Your task to perform on an android device: Open calendar and show me the second week of next month Image 0: 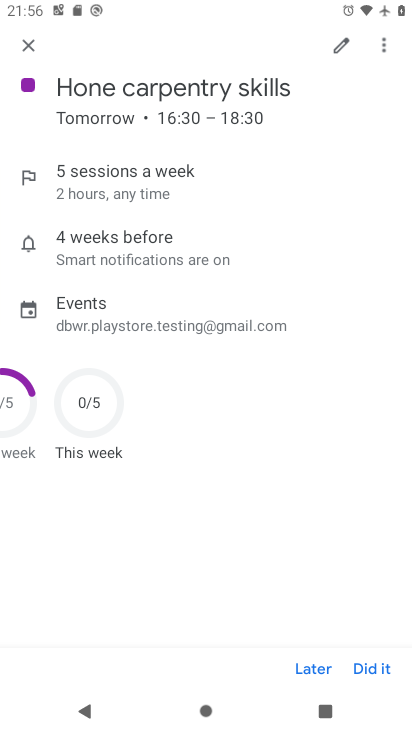
Step 0: press home button
Your task to perform on an android device: Open calendar and show me the second week of next month Image 1: 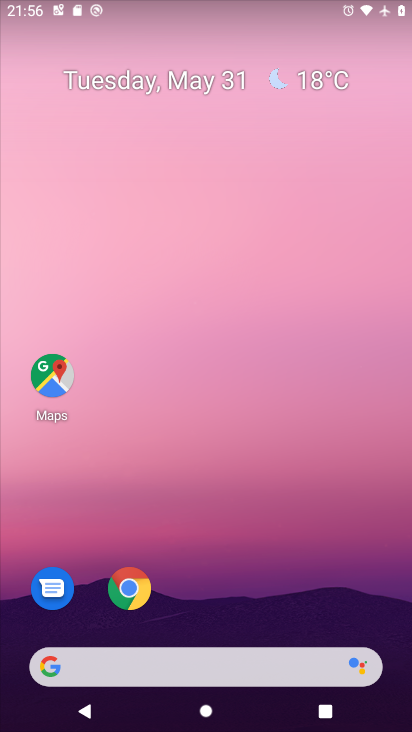
Step 1: drag from (153, 664) to (280, 93)
Your task to perform on an android device: Open calendar and show me the second week of next month Image 2: 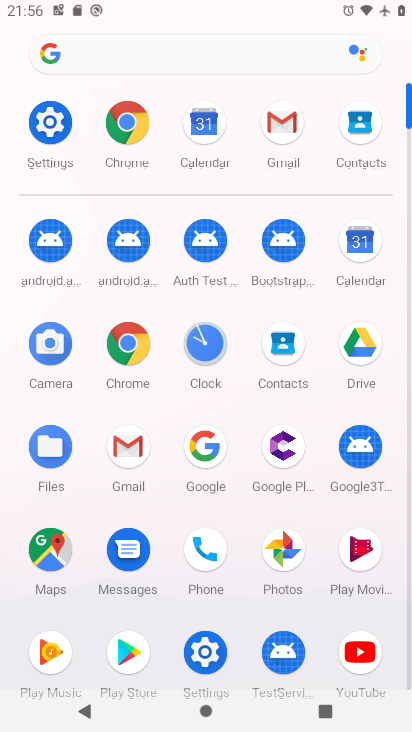
Step 2: click (361, 247)
Your task to perform on an android device: Open calendar and show me the second week of next month Image 3: 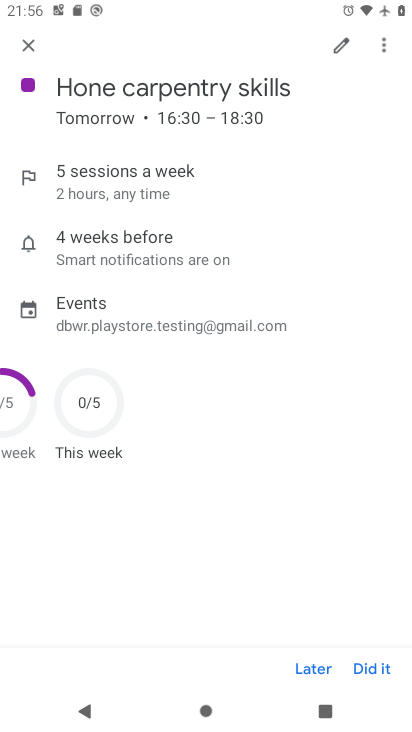
Step 3: click (28, 47)
Your task to perform on an android device: Open calendar and show me the second week of next month Image 4: 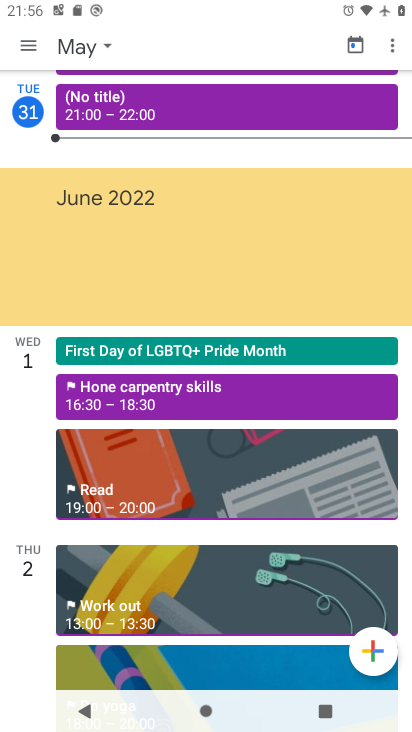
Step 4: click (83, 39)
Your task to perform on an android device: Open calendar and show me the second week of next month Image 5: 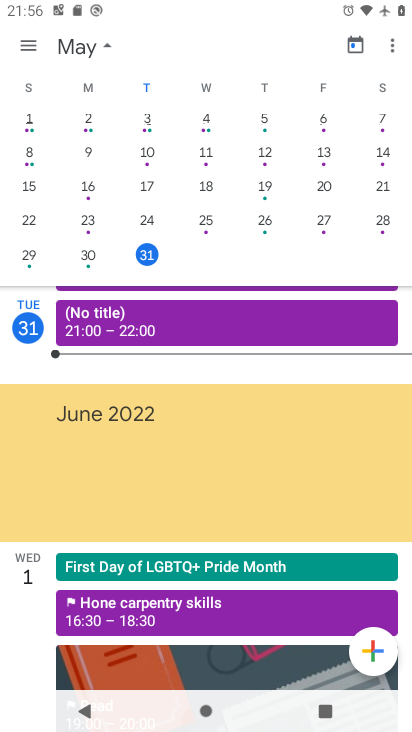
Step 5: drag from (376, 176) to (52, 210)
Your task to perform on an android device: Open calendar and show me the second week of next month Image 6: 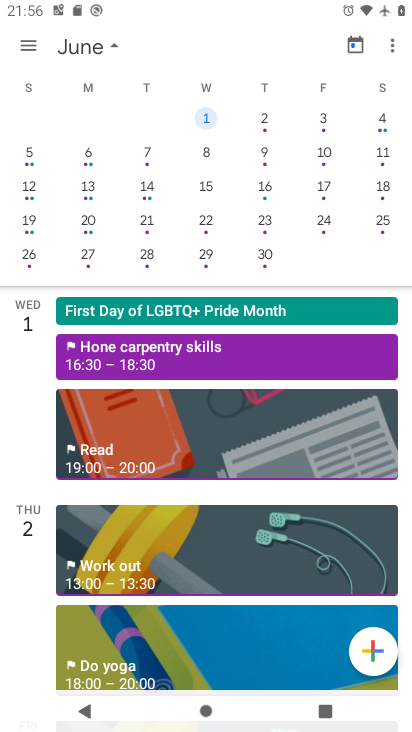
Step 6: click (30, 155)
Your task to perform on an android device: Open calendar and show me the second week of next month Image 7: 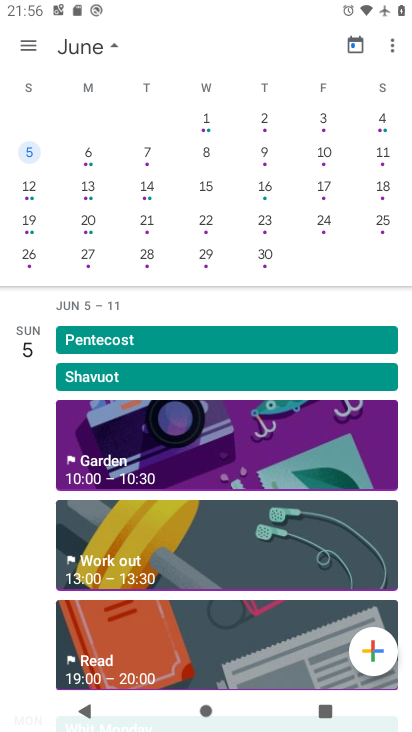
Step 7: click (28, 39)
Your task to perform on an android device: Open calendar and show me the second week of next month Image 8: 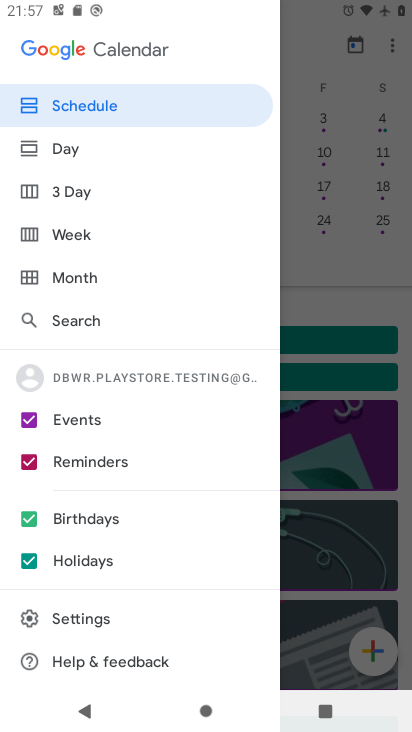
Step 8: click (82, 235)
Your task to perform on an android device: Open calendar and show me the second week of next month Image 9: 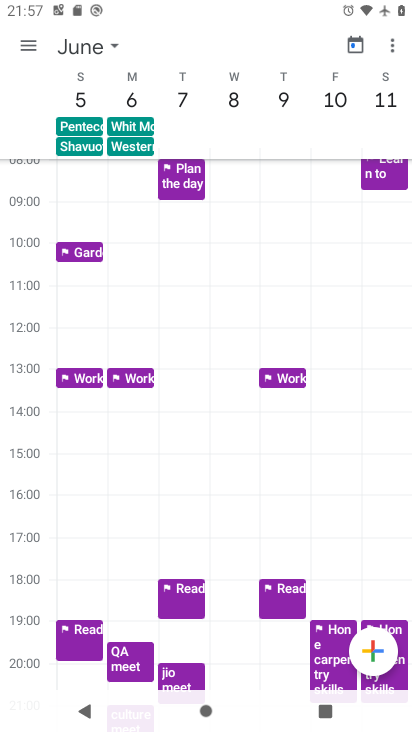
Step 9: task complete